Your task to perform on an android device: Search for Italian restaurants on Maps Image 0: 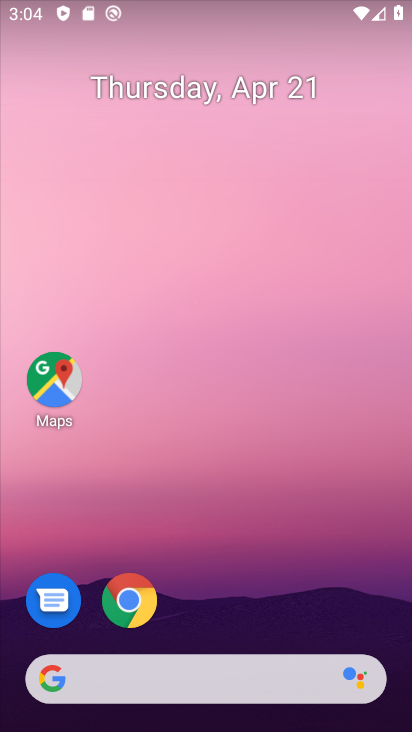
Step 0: click (53, 385)
Your task to perform on an android device: Search for Italian restaurants on Maps Image 1: 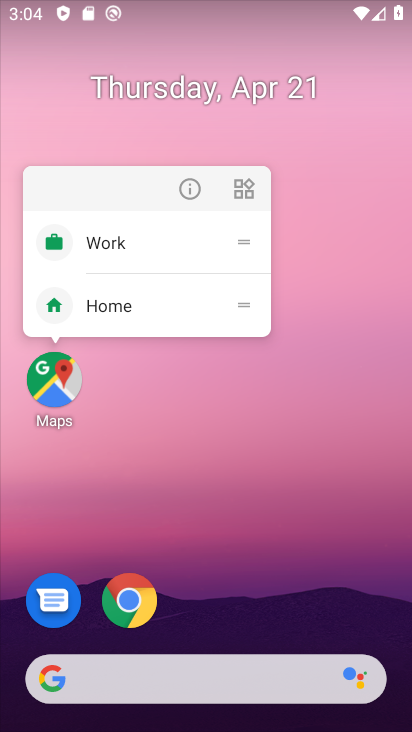
Step 1: click (53, 385)
Your task to perform on an android device: Search for Italian restaurants on Maps Image 2: 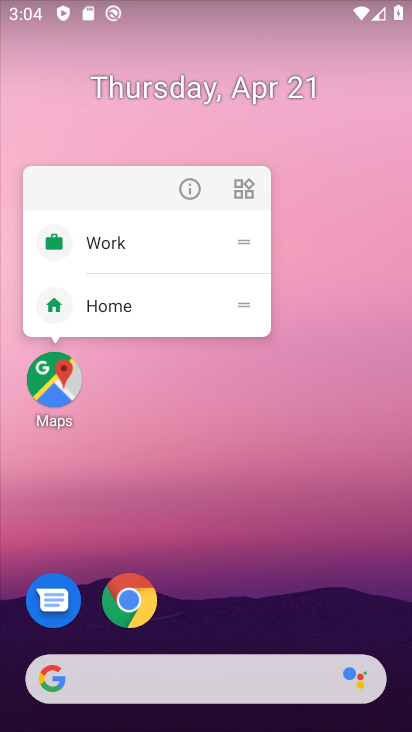
Step 2: click (56, 380)
Your task to perform on an android device: Search for Italian restaurants on Maps Image 3: 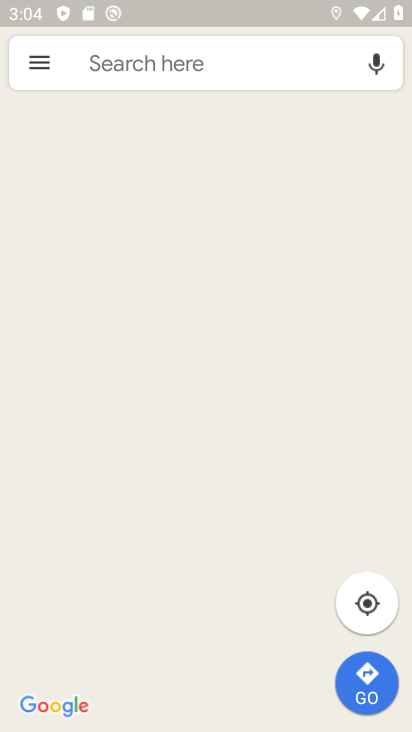
Step 3: click (227, 57)
Your task to perform on an android device: Search for Italian restaurants on Maps Image 4: 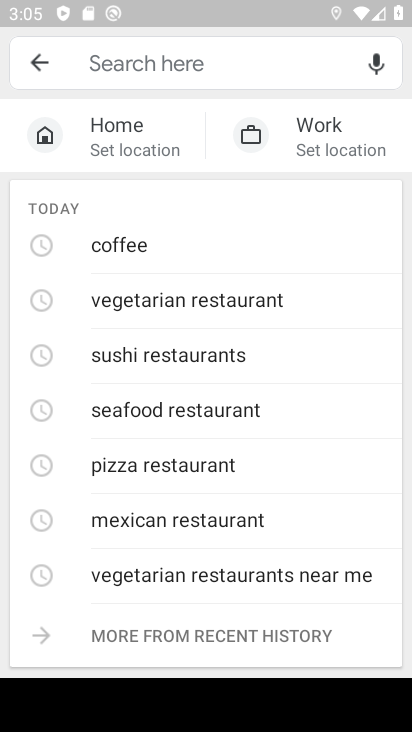
Step 4: type "Italian restaurants"
Your task to perform on an android device: Search for Italian restaurants on Maps Image 5: 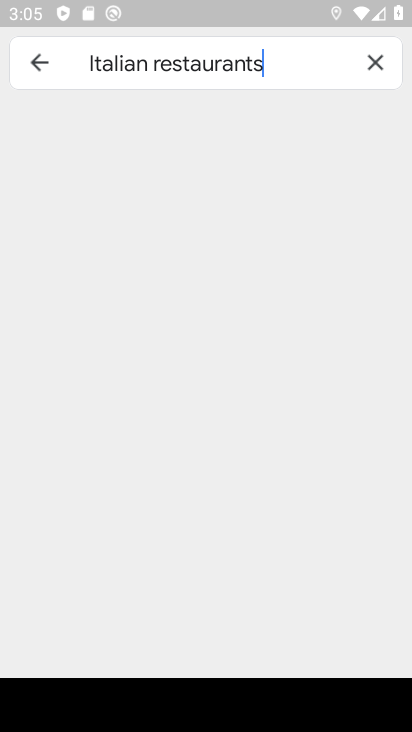
Step 5: type ""
Your task to perform on an android device: Search for Italian restaurants on Maps Image 6: 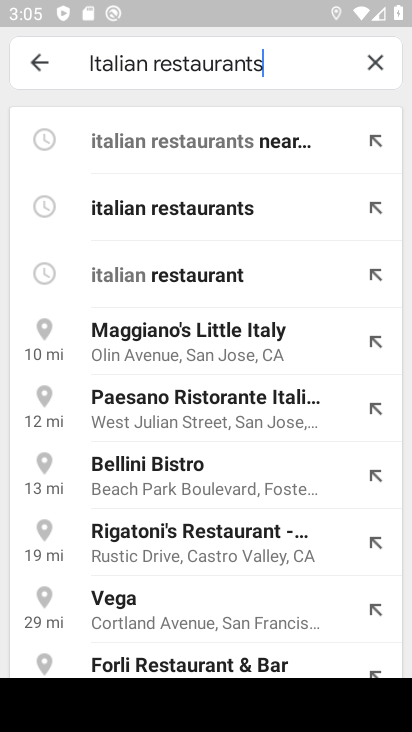
Step 6: click (232, 208)
Your task to perform on an android device: Search for Italian restaurants on Maps Image 7: 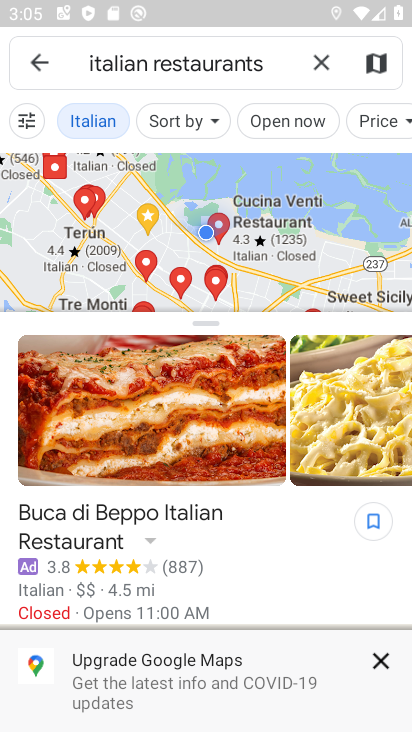
Step 7: task complete